Your task to perform on an android device: Open wifi settings Image 0: 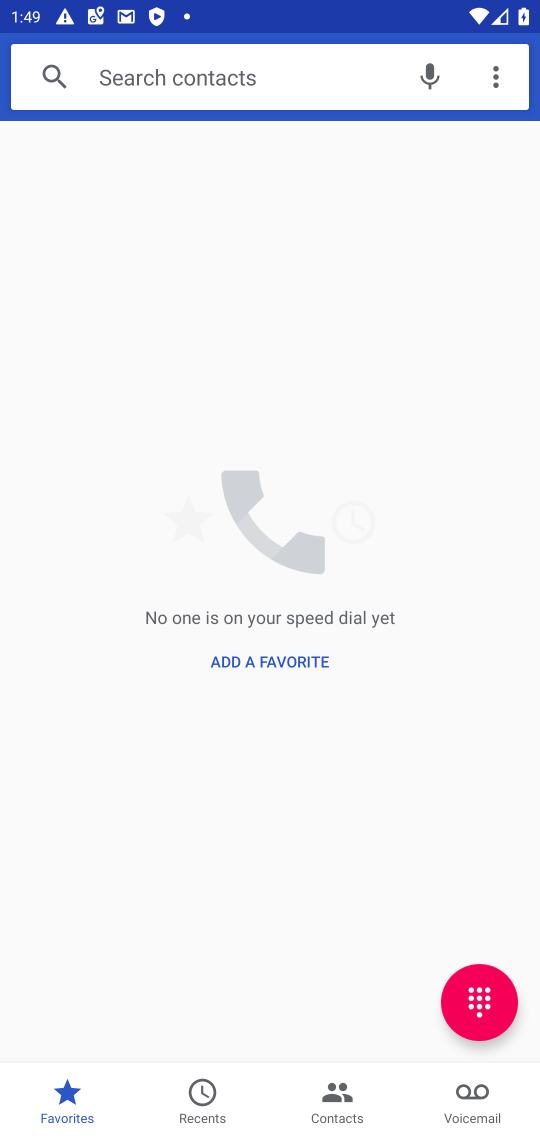
Step 0: press home button
Your task to perform on an android device: Open wifi settings Image 1: 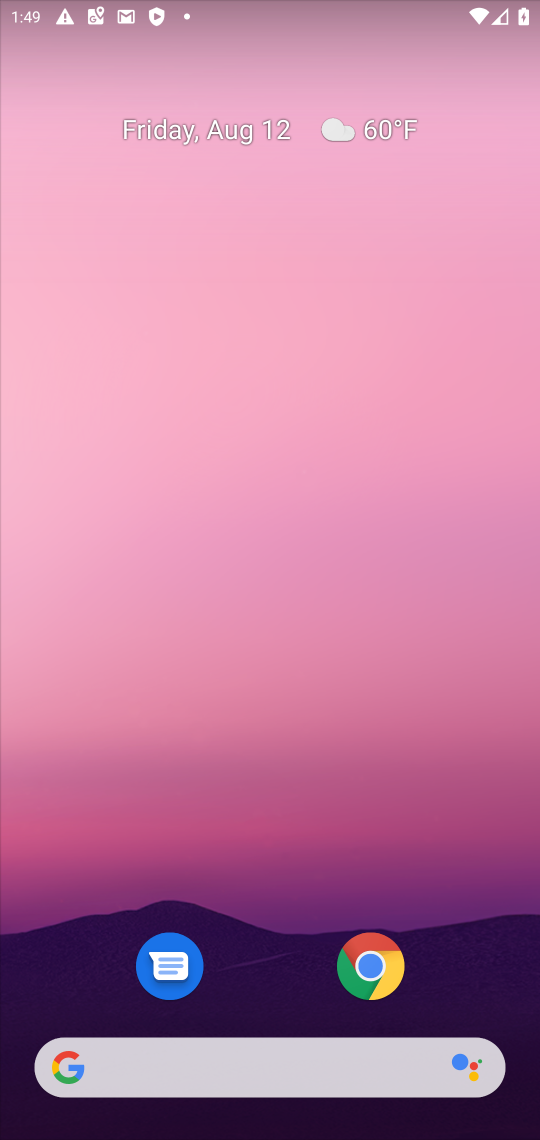
Step 1: drag from (236, 564) to (342, 76)
Your task to perform on an android device: Open wifi settings Image 2: 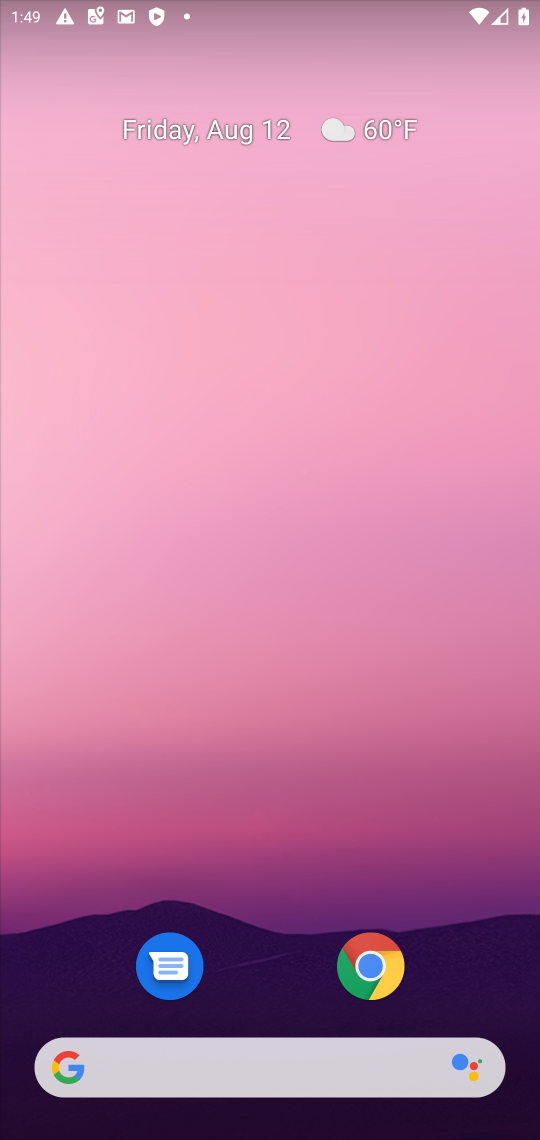
Step 2: drag from (258, 888) to (322, 21)
Your task to perform on an android device: Open wifi settings Image 3: 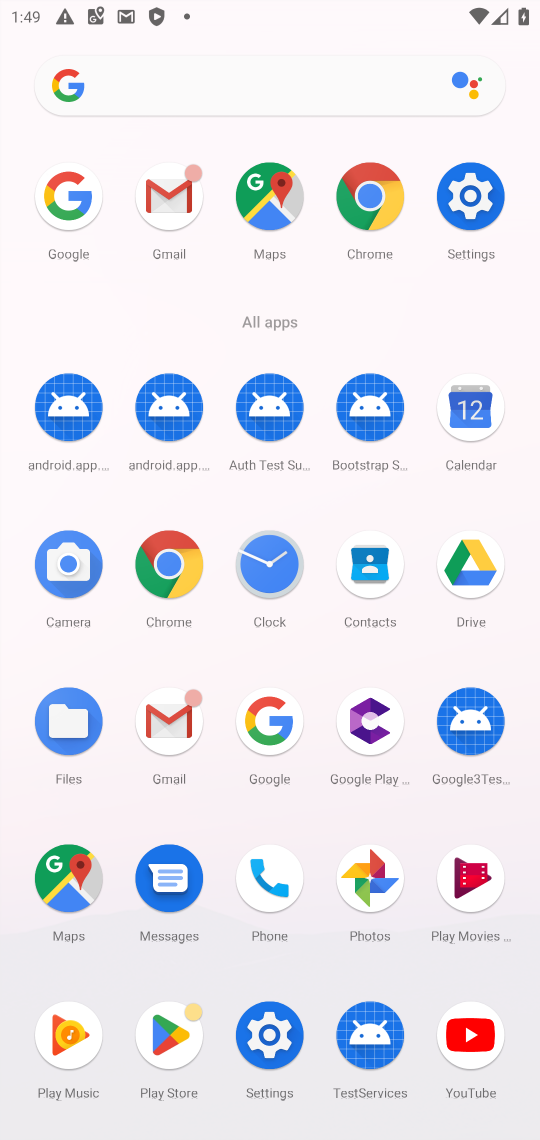
Step 3: click (260, 1045)
Your task to perform on an android device: Open wifi settings Image 4: 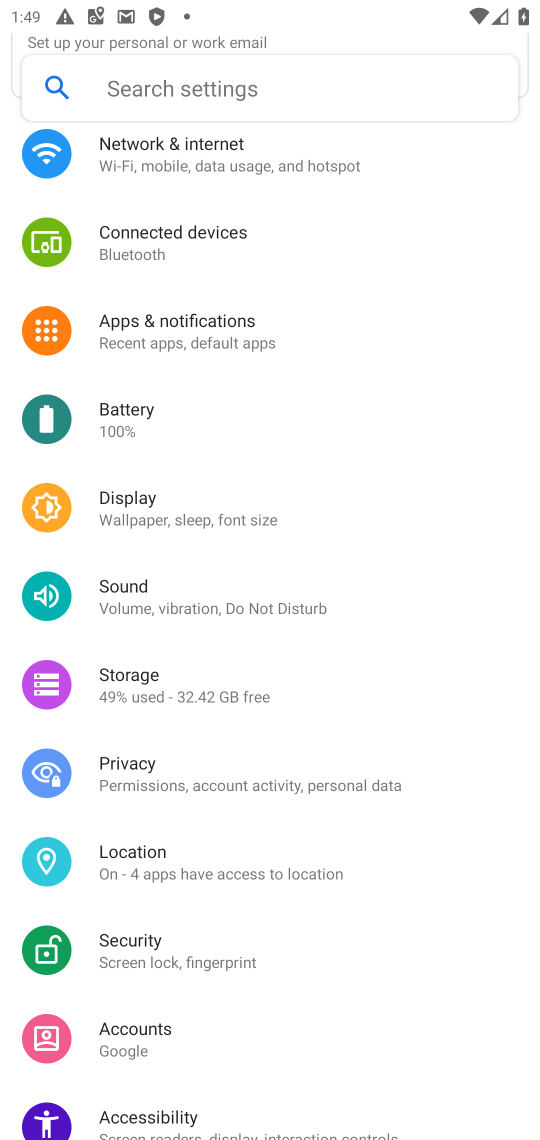
Step 4: click (222, 164)
Your task to perform on an android device: Open wifi settings Image 5: 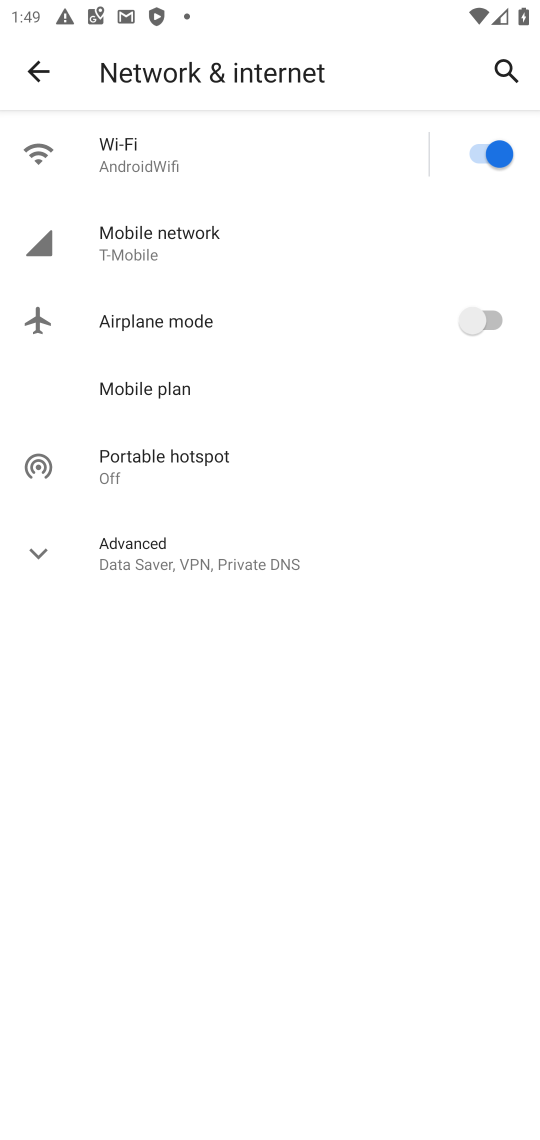
Step 5: click (207, 162)
Your task to perform on an android device: Open wifi settings Image 6: 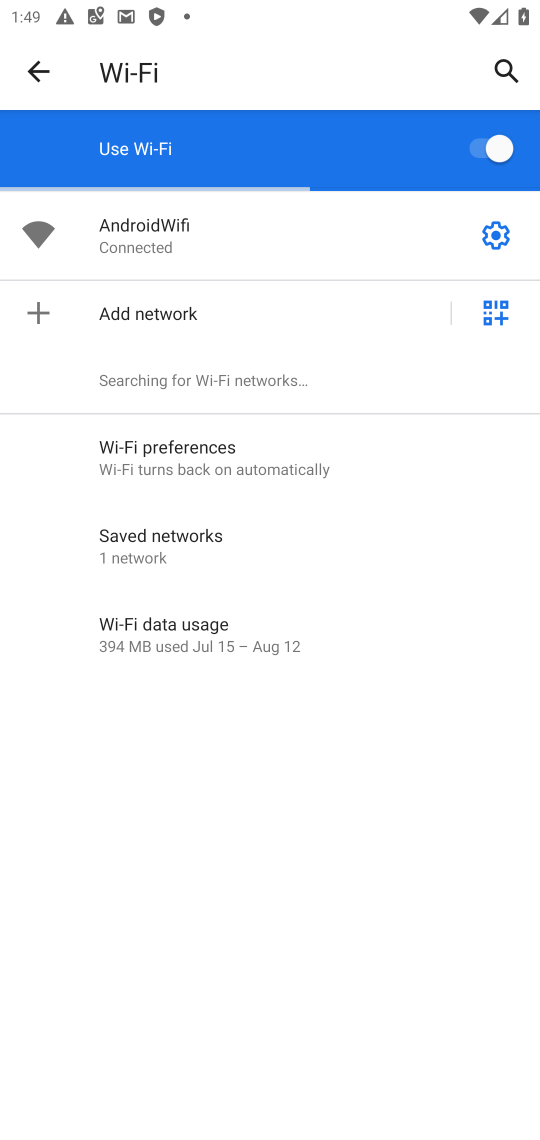
Step 6: click (498, 238)
Your task to perform on an android device: Open wifi settings Image 7: 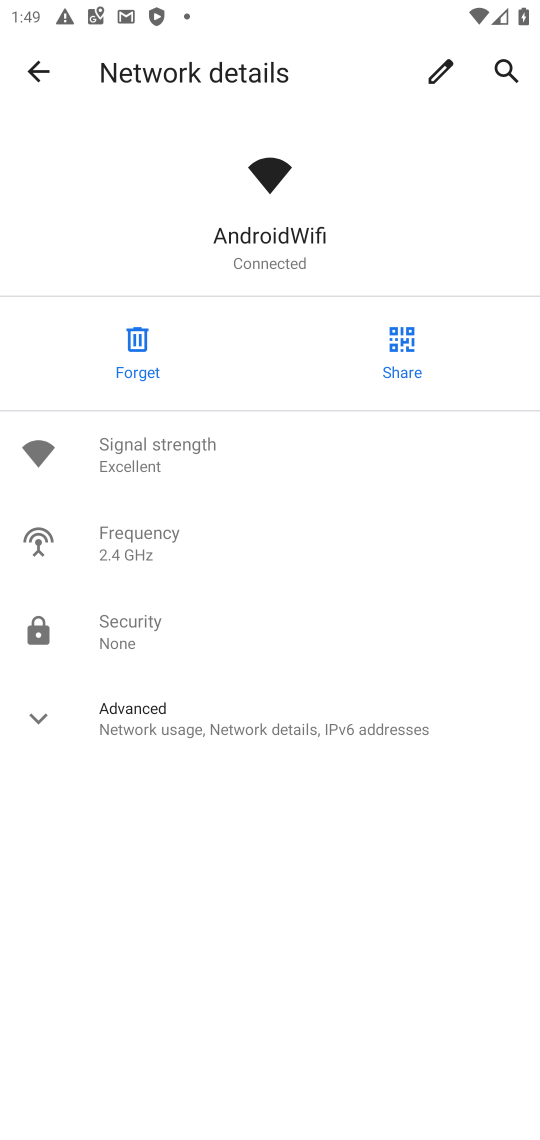
Step 7: task complete